Your task to perform on an android device: Add "bose soundlink" to the cart on newegg.com, then select checkout. Image 0: 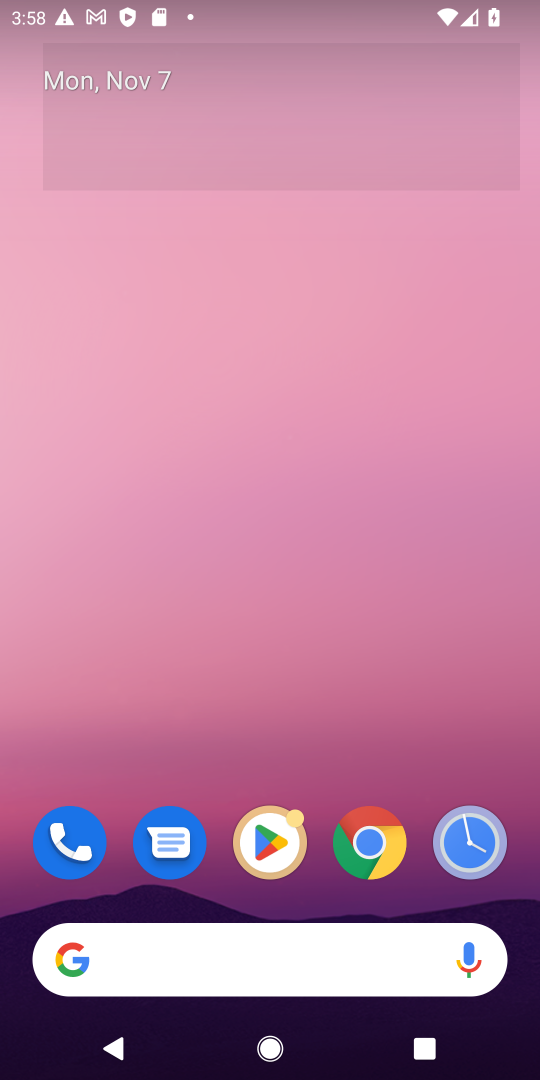
Step 0: drag from (315, 736) to (279, 205)
Your task to perform on an android device: Add "bose soundlink" to the cart on newegg.com, then select checkout. Image 1: 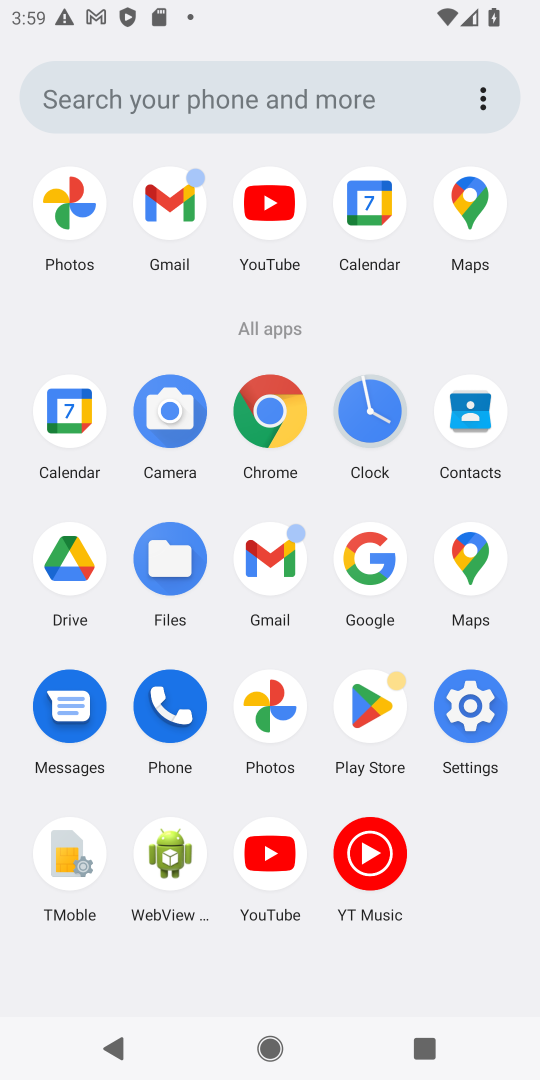
Step 1: click (276, 409)
Your task to perform on an android device: Add "bose soundlink" to the cart on newegg.com, then select checkout. Image 2: 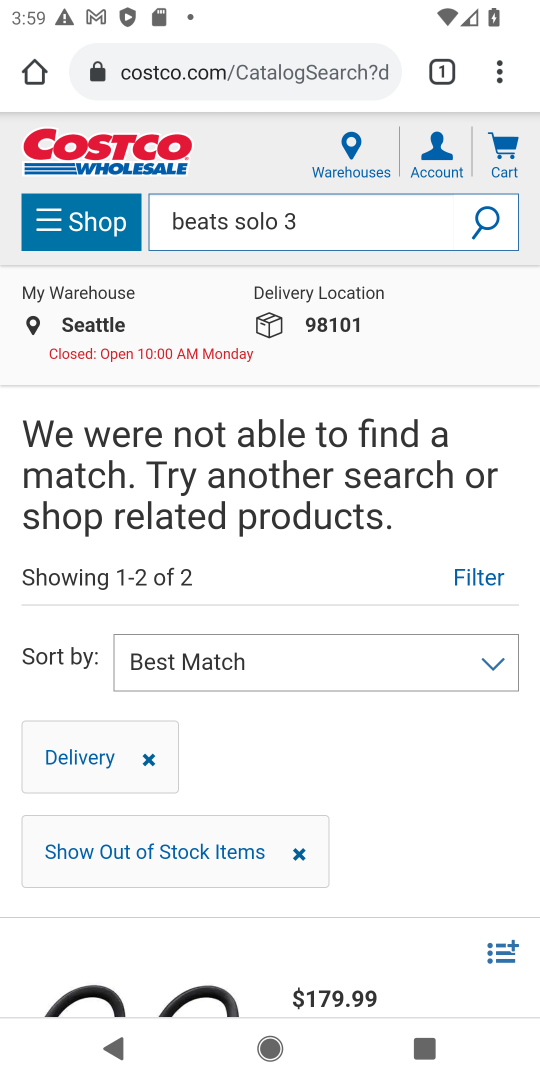
Step 2: click (242, 74)
Your task to perform on an android device: Add "bose soundlink" to the cart on newegg.com, then select checkout. Image 3: 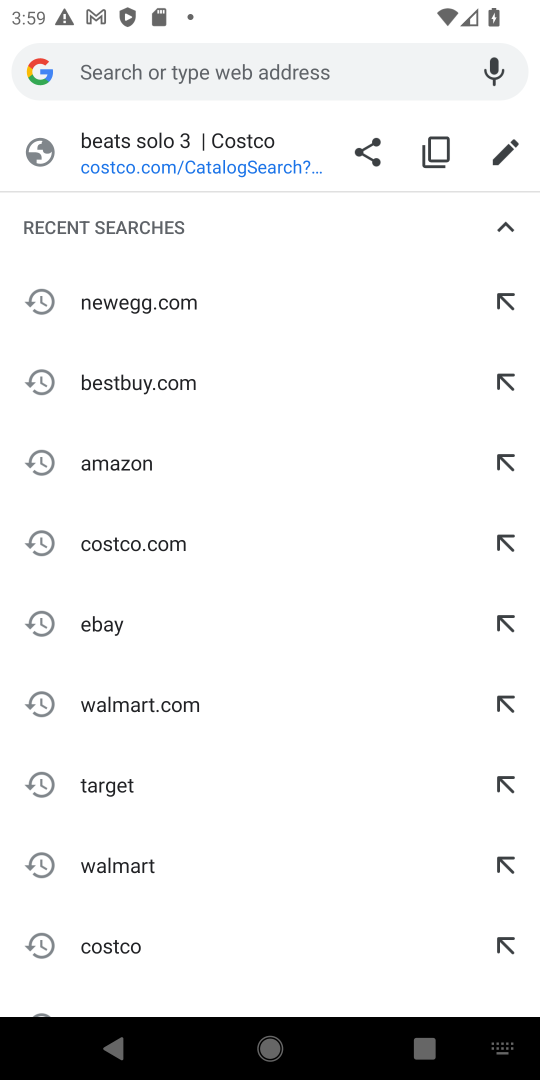
Step 3: press enter
Your task to perform on an android device: Add "bose soundlink" to the cart on newegg.com, then select checkout. Image 4: 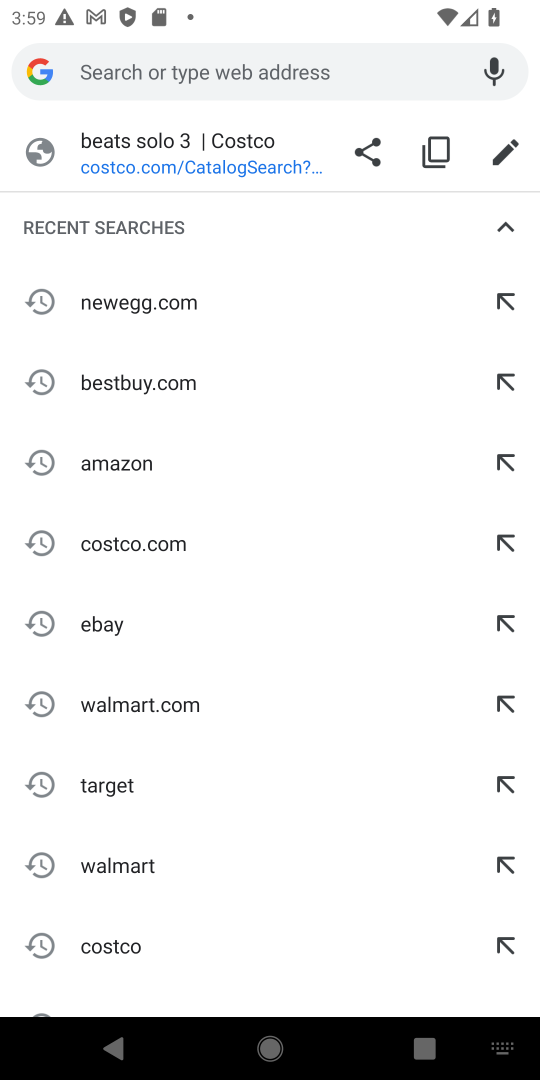
Step 4: type "bose soundlink"
Your task to perform on an android device: Add "bose soundlink" to the cart on newegg.com, then select checkout. Image 5: 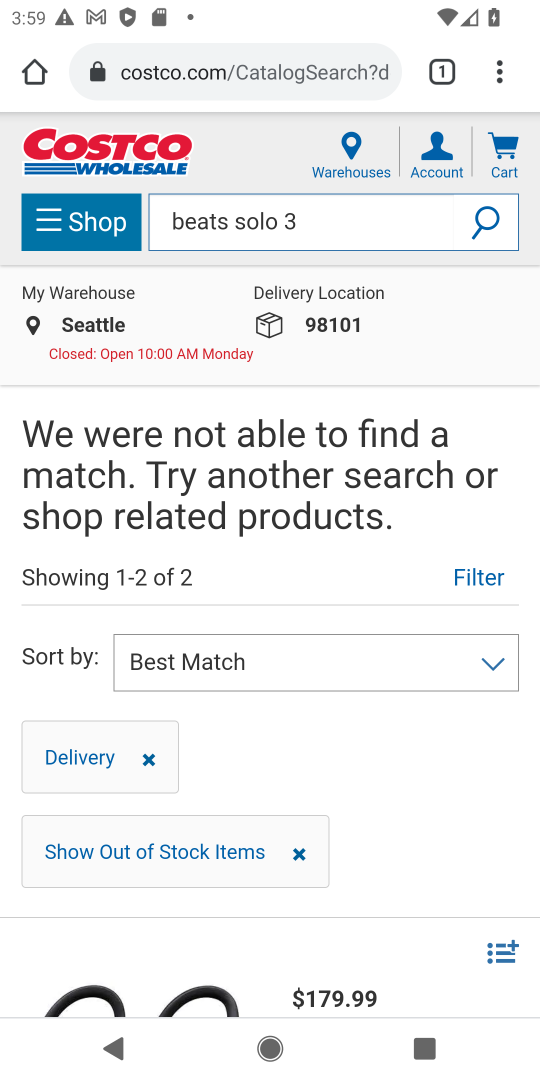
Step 5: click (314, 224)
Your task to perform on an android device: Add "bose soundlink" to the cart on newegg.com, then select checkout. Image 6: 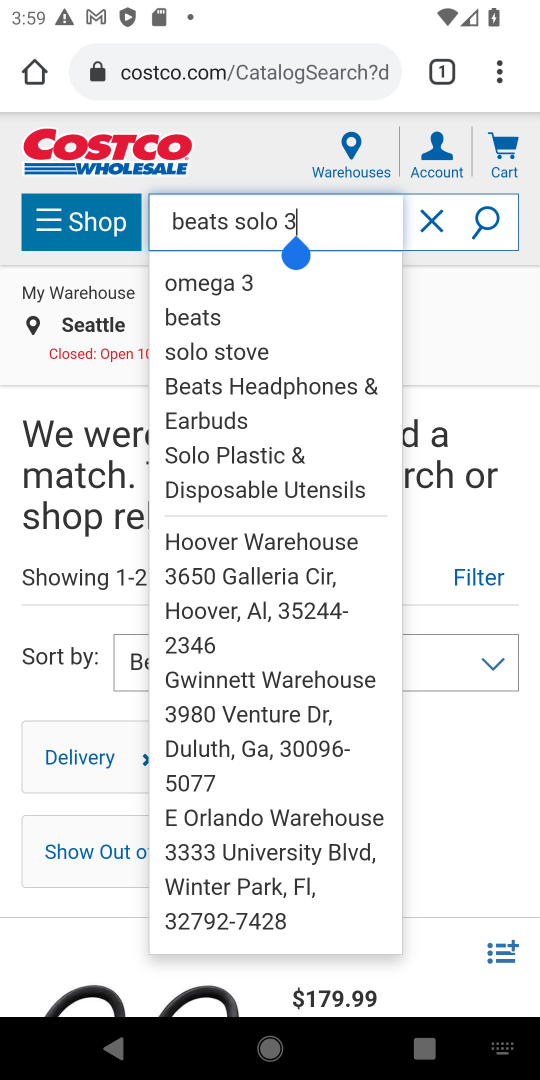
Step 6: click (430, 216)
Your task to perform on an android device: Add "bose soundlink" to the cart on newegg.com, then select checkout. Image 7: 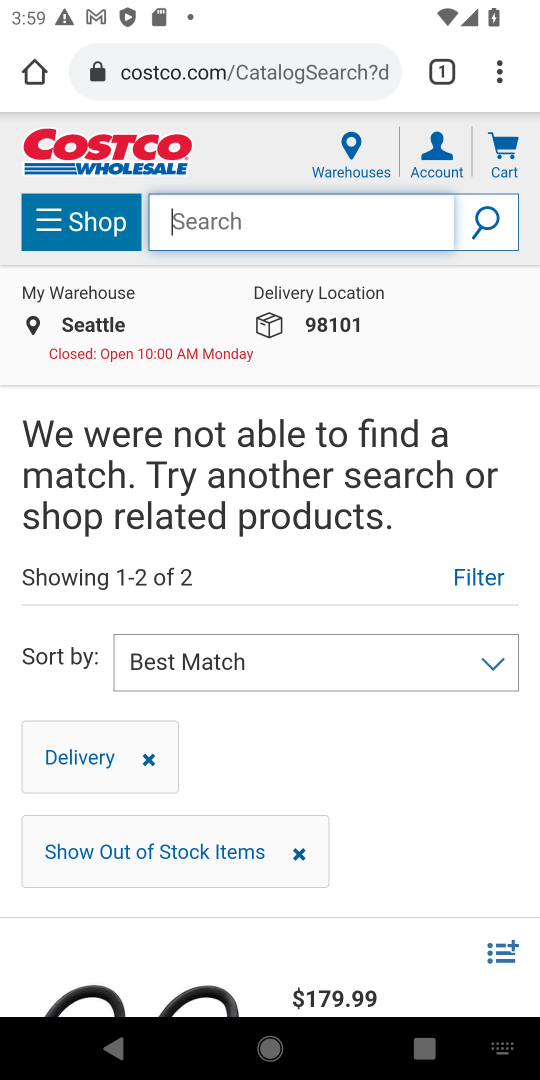
Step 7: click (228, 73)
Your task to perform on an android device: Add "bose soundlink" to the cart on newegg.com, then select checkout. Image 8: 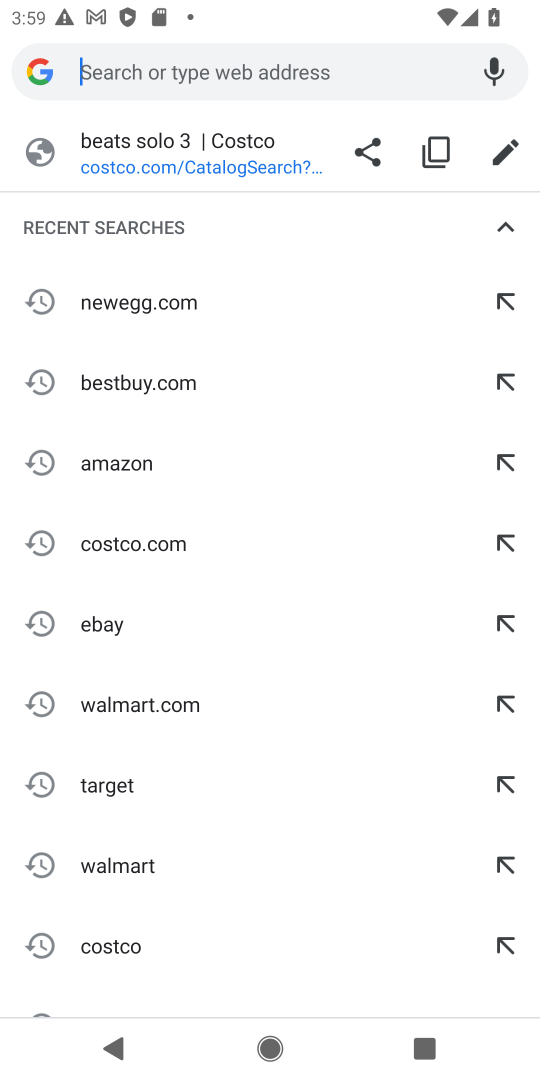
Step 8: click (142, 301)
Your task to perform on an android device: Add "bose soundlink" to the cart on newegg.com, then select checkout. Image 9: 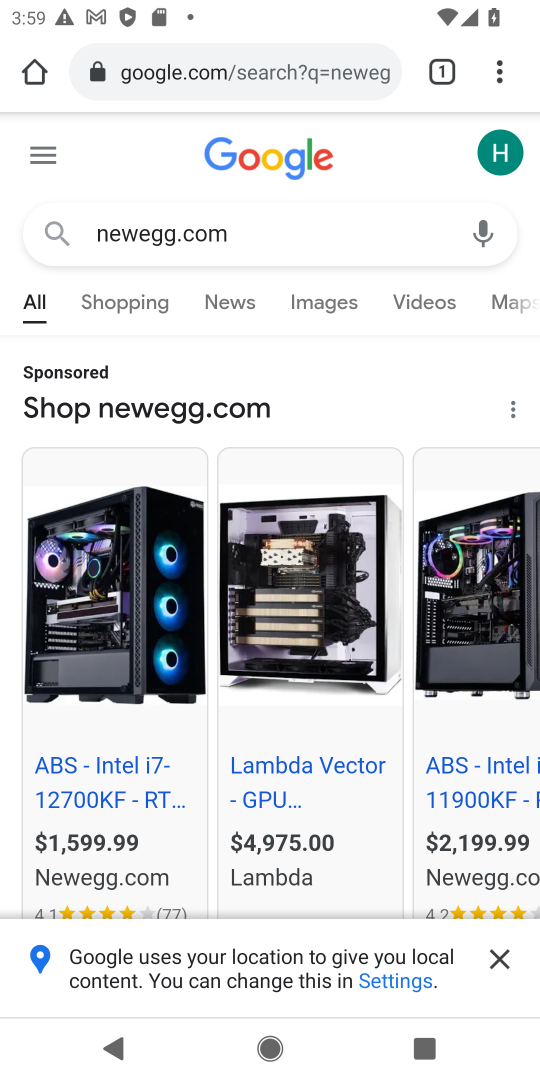
Step 9: drag from (250, 650) to (266, 266)
Your task to perform on an android device: Add "bose soundlink" to the cart on newegg.com, then select checkout. Image 10: 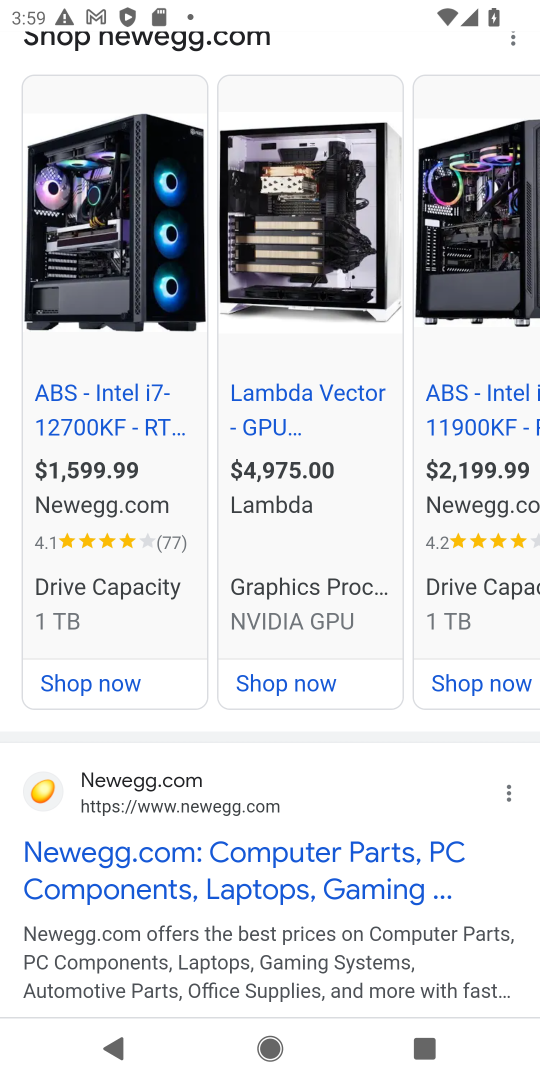
Step 10: drag from (291, 451) to (374, 842)
Your task to perform on an android device: Add "bose soundlink" to the cart on newegg.com, then select checkout. Image 11: 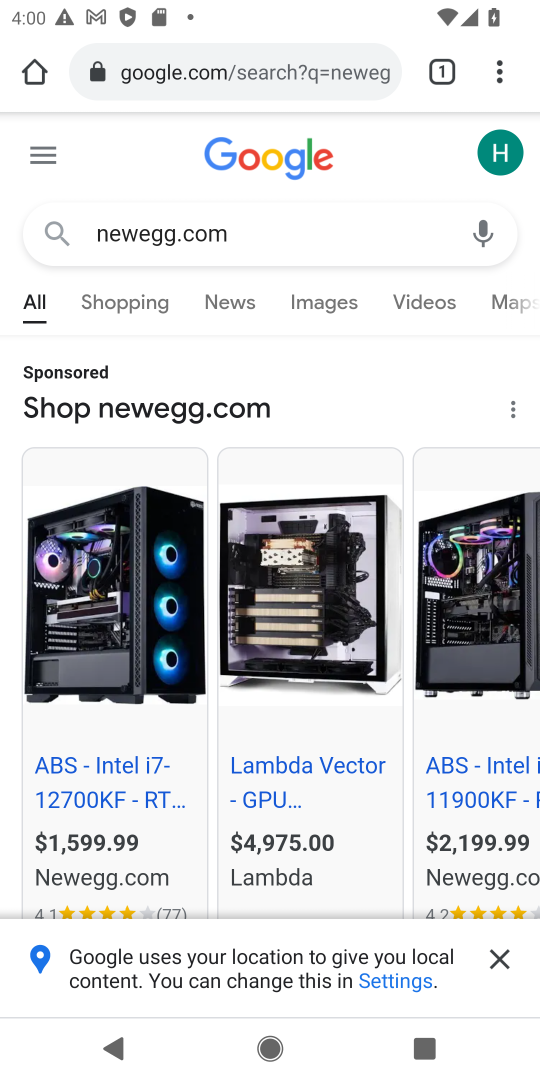
Step 11: drag from (326, 786) to (320, 421)
Your task to perform on an android device: Add "bose soundlink" to the cart on newegg.com, then select checkout. Image 12: 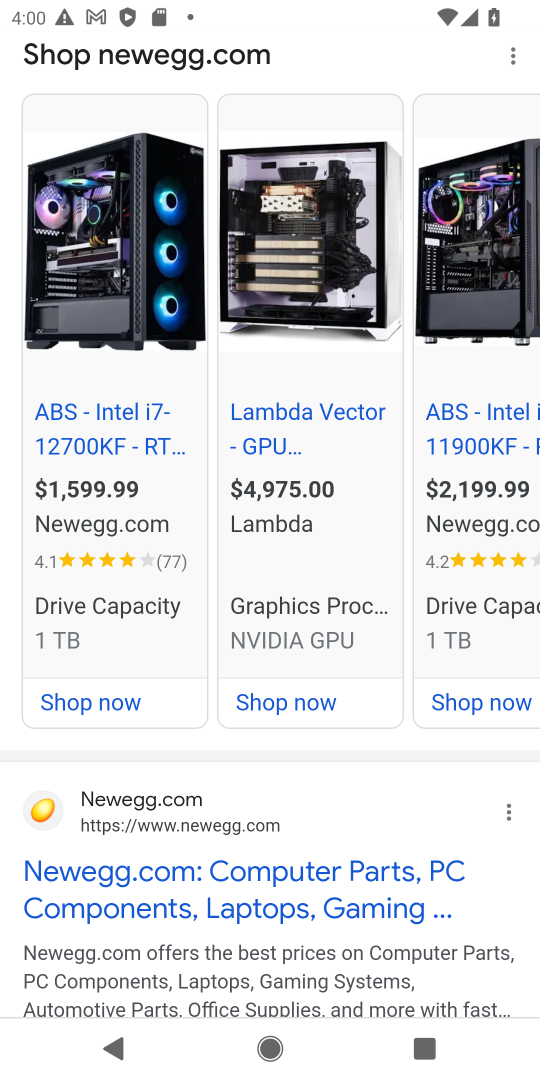
Step 12: click (117, 806)
Your task to perform on an android device: Add "bose soundlink" to the cart on newegg.com, then select checkout. Image 13: 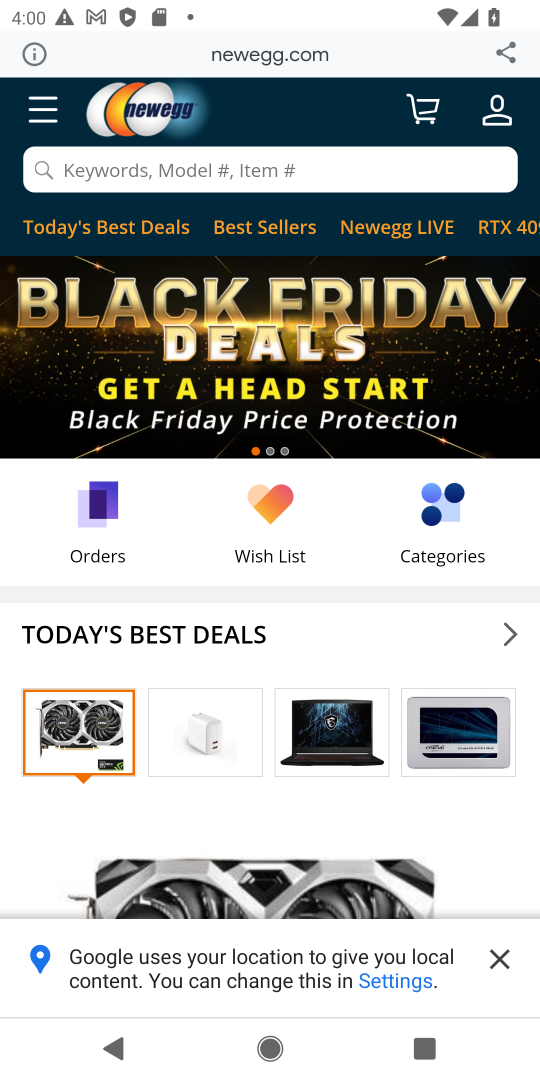
Step 13: click (122, 181)
Your task to perform on an android device: Add "bose soundlink" to the cart on newegg.com, then select checkout. Image 14: 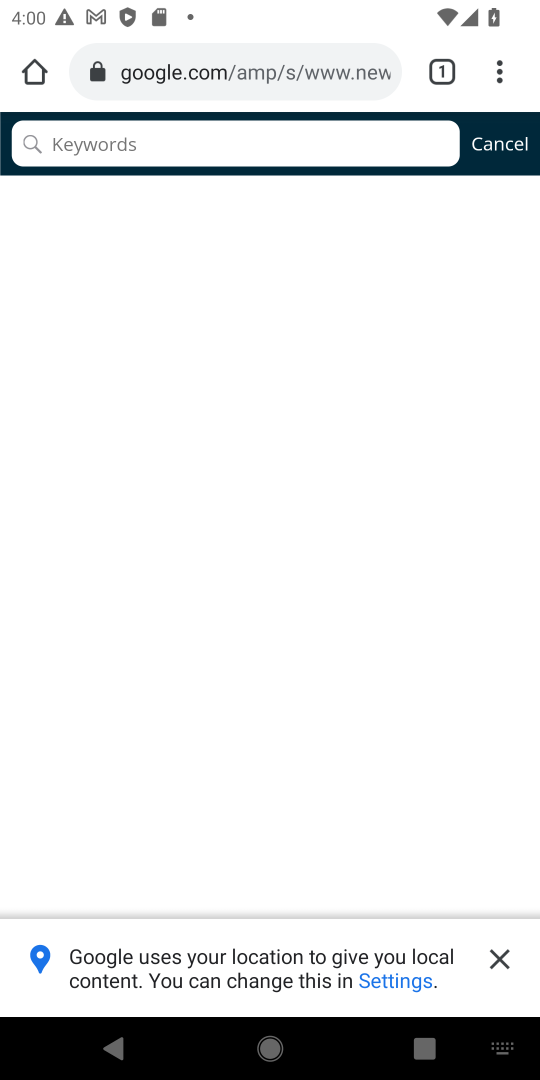
Step 14: type "bose soundlink"
Your task to perform on an android device: Add "bose soundlink" to the cart on newegg.com, then select checkout. Image 15: 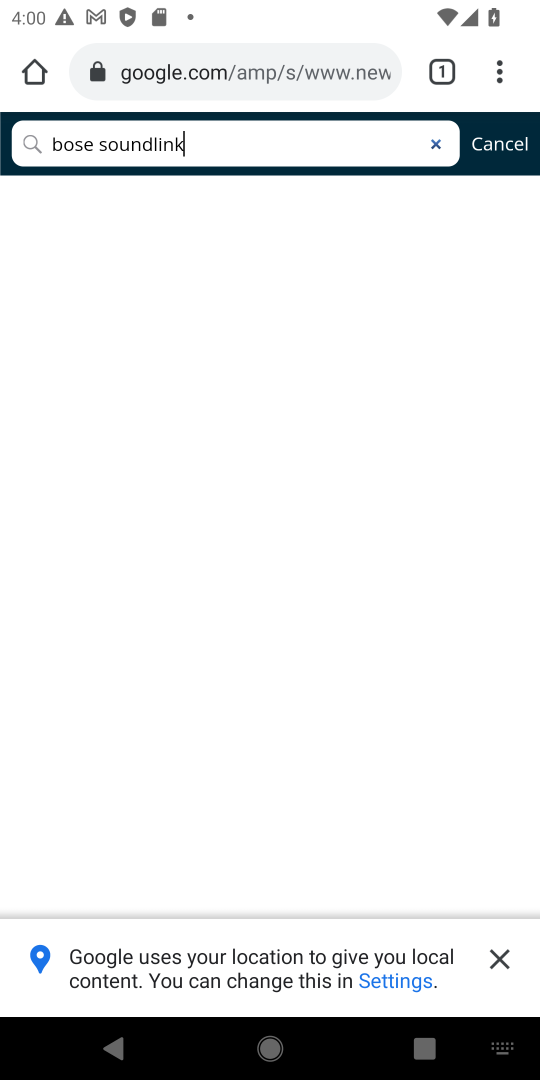
Step 15: press enter
Your task to perform on an android device: Add "bose soundlink" to the cart on newegg.com, then select checkout. Image 16: 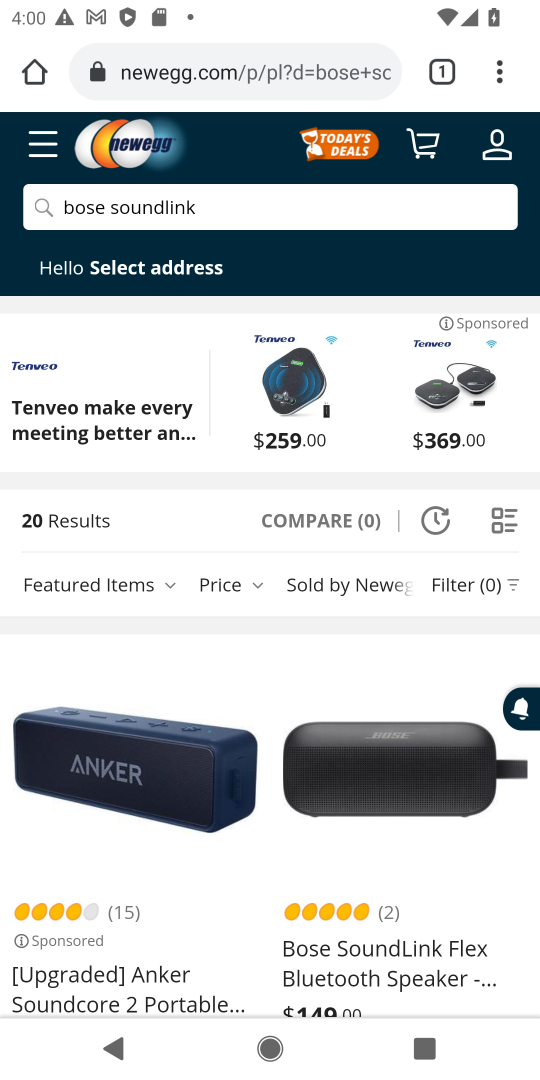
Step 16: drag from (329, 934) to (338, 439)
Your task to perform on an android device: Add "bose soundlink" to the cart on newegg.com, then select checkout. Image 17: 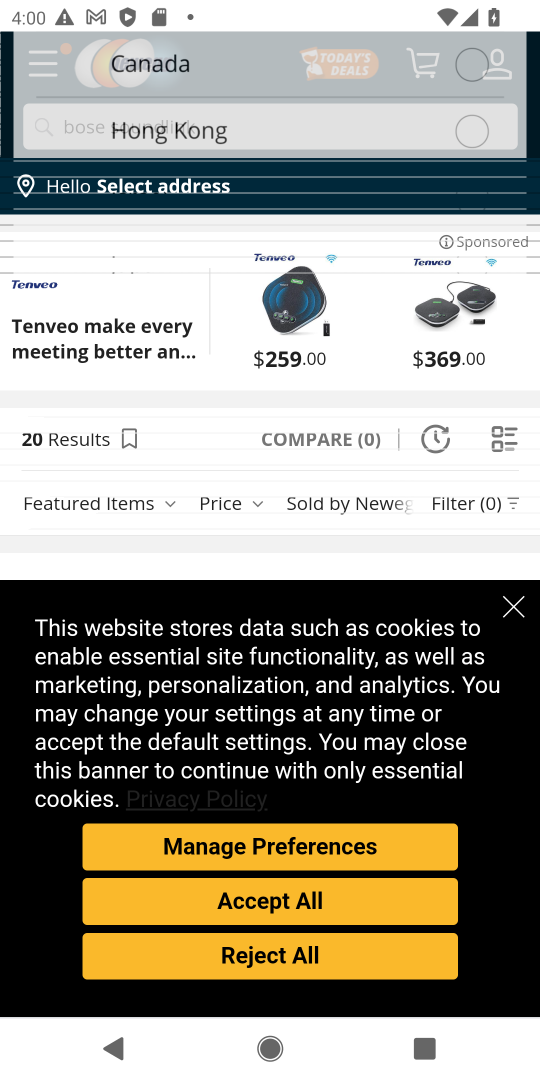
Step 17: click (509, 607)
Your task to perform on an android device: Add "bose soundlink" to the cart on newegg.com, then select checkout. Image 18: 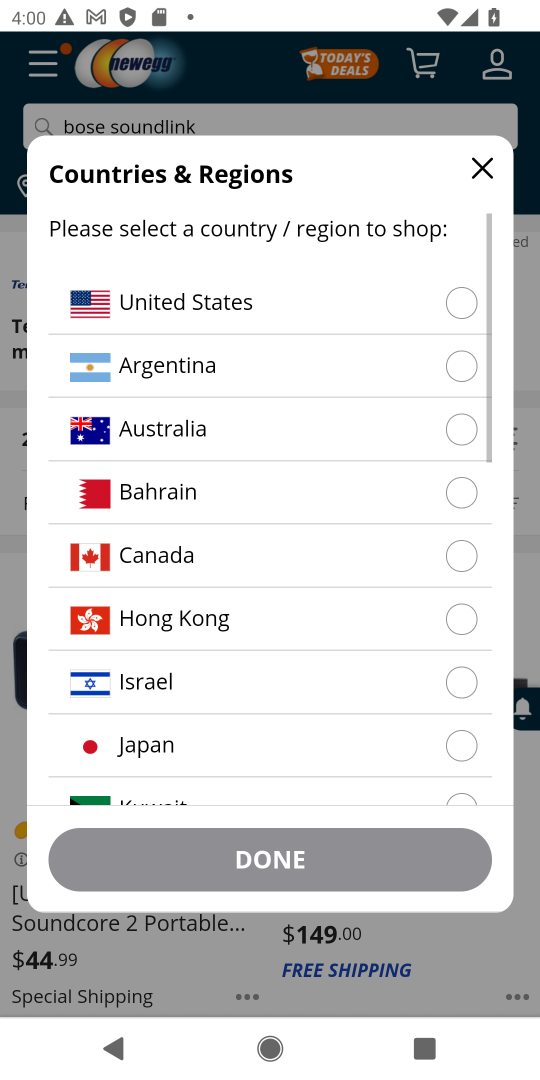
Step 18: click (516, 606)
Your task to perform on an android device: Add "bose soundlink" to the cart on newegg.com, then select checkout. Image 19: 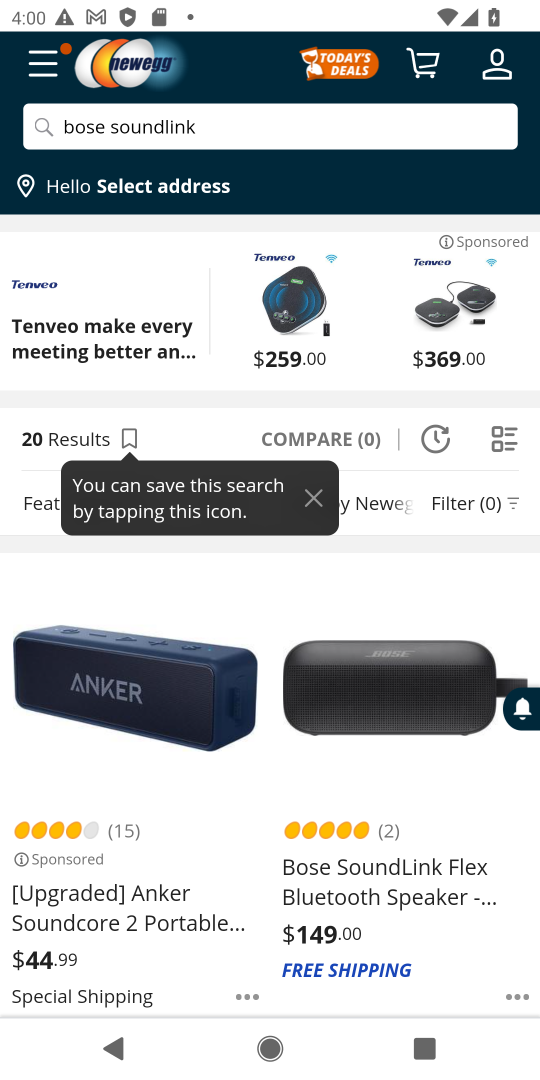
Step 19: drag from (291, 611) to (369, 352)
Your task to perform on an android device: Add "bose soundlink" to the cart on newegg.com, then select checkout. Image 20: 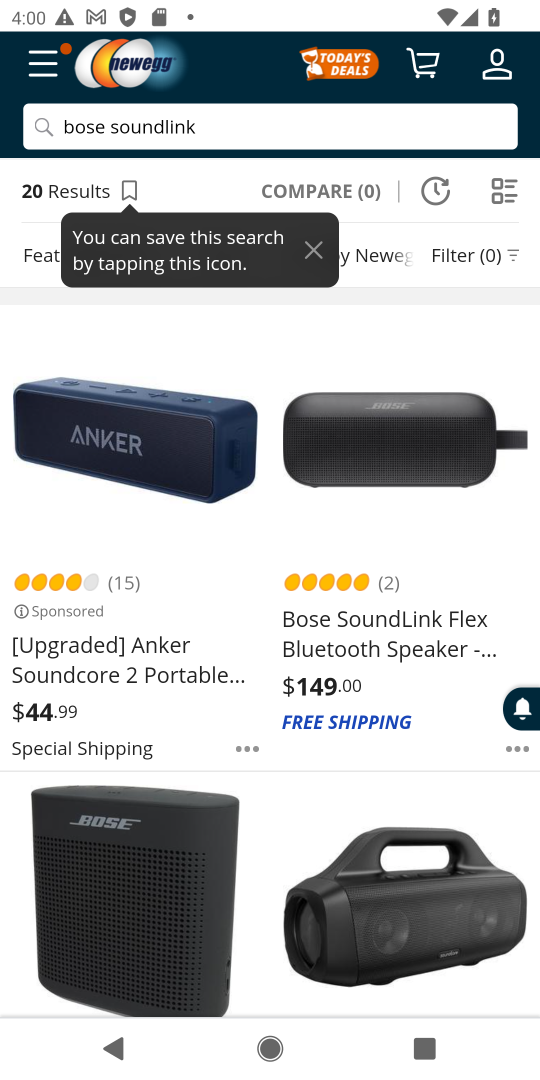
Step 20: click (151, 445)
Your task to perform on an android device: Add "bose soundlink" to the cart on newegg.com, then select checkout. Image 21: 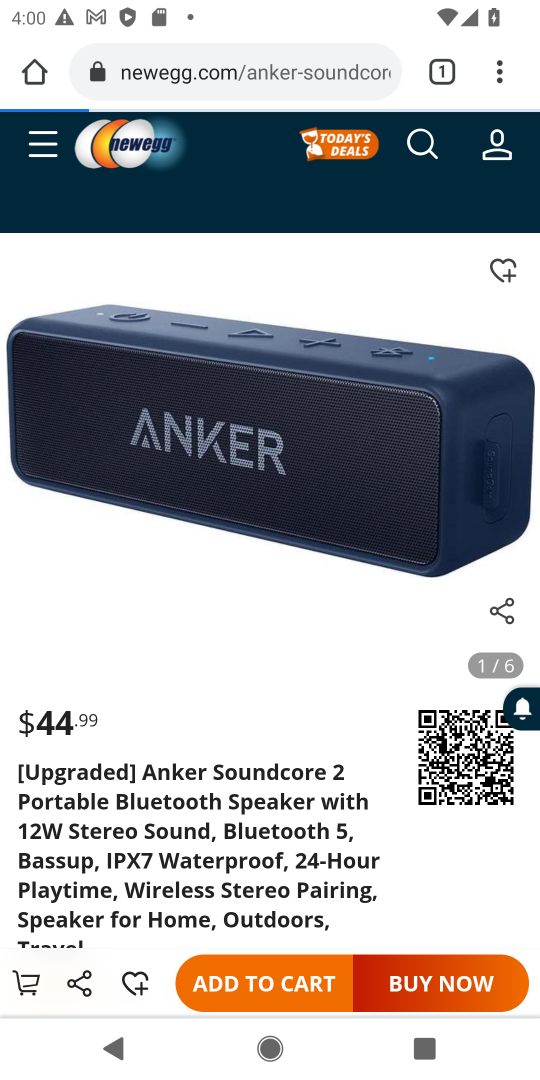
Step 21: click (136, 439)
Your task to perform on an android device: Add "bose soundlink" to the cart on newegg.com, then select checkout. Image 22: 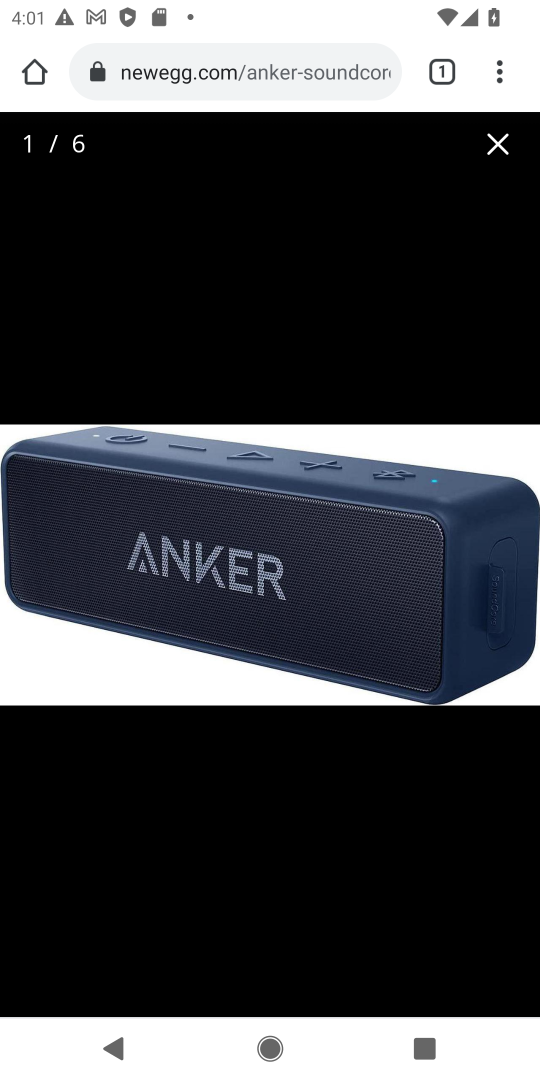
Step 22: click (499, 147)
Your task to perform on an android device: Add "bose soundlink" to the cart on newegg.com, then select checkout. Image 23: 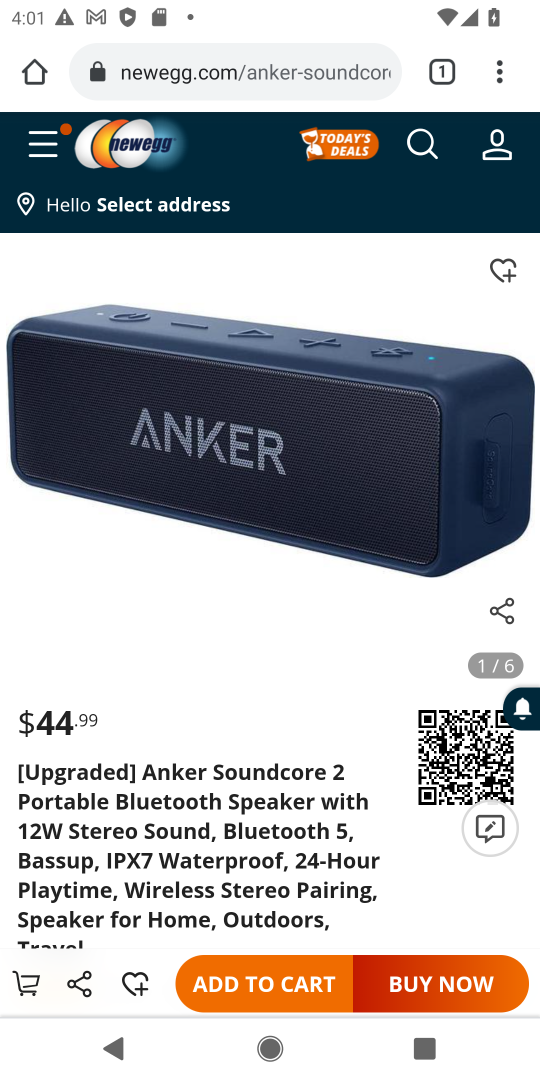
Step 23: click (258, 982)
Your task to perform on an android device: Add "bose soundlink" to the cart on newegg.com, then select checkout. Image 24: 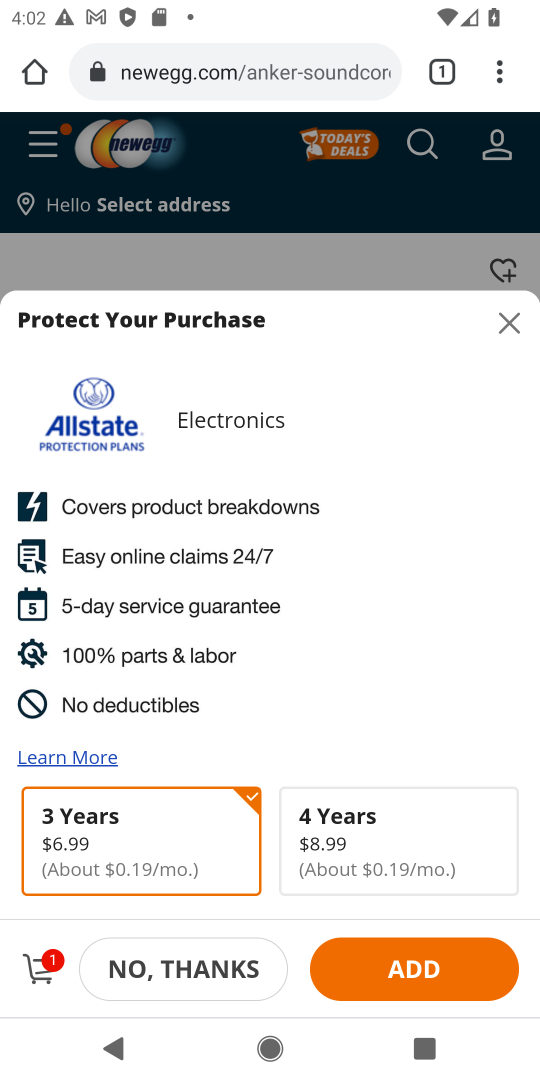
Step 24: click (516, 328)
Your task to perform on an android device: Add "bose soundlink" to the cart on newegg.com, then select checkout. Image 25: 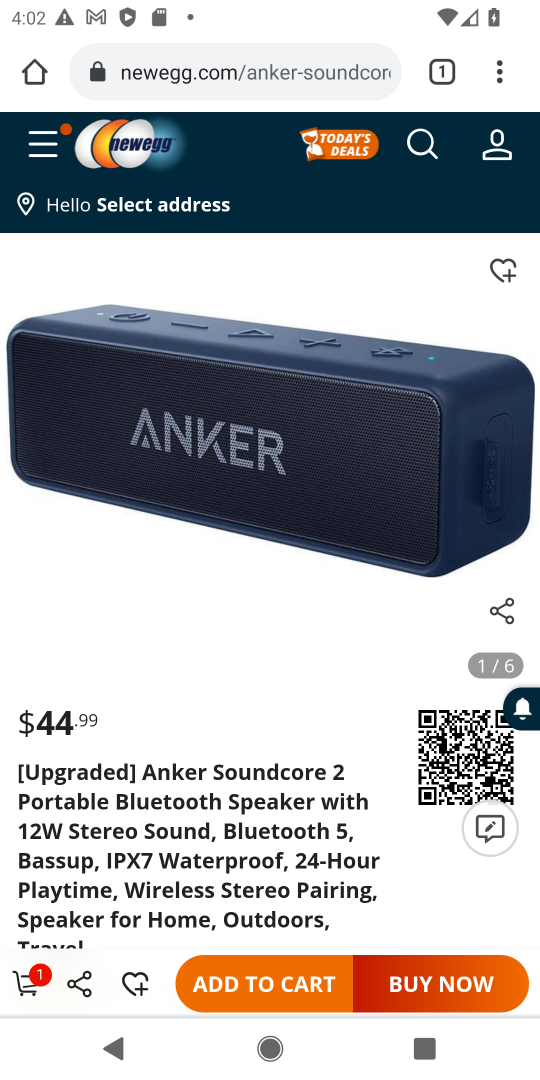
Step 25: click (244, 983)
Your task to perform on an android device: Add "bose soundlink" to the cart on newegg.com, then select checkout. Image 26: 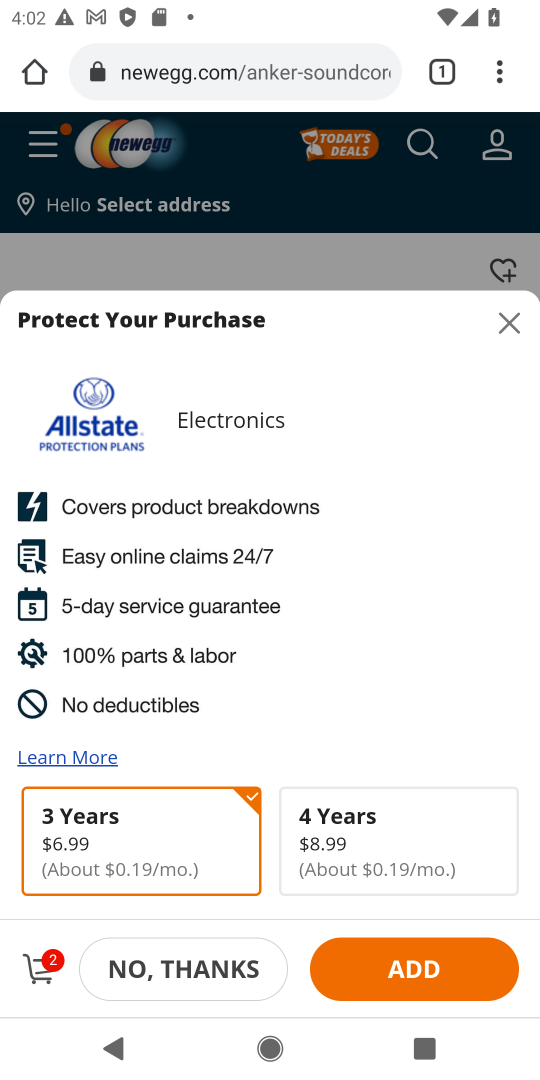
Step 26: click (424, 974)
Your task to perform on an android device: Add "bose soundlink" to the cart on newegg.com, then select checkout. Image 27: 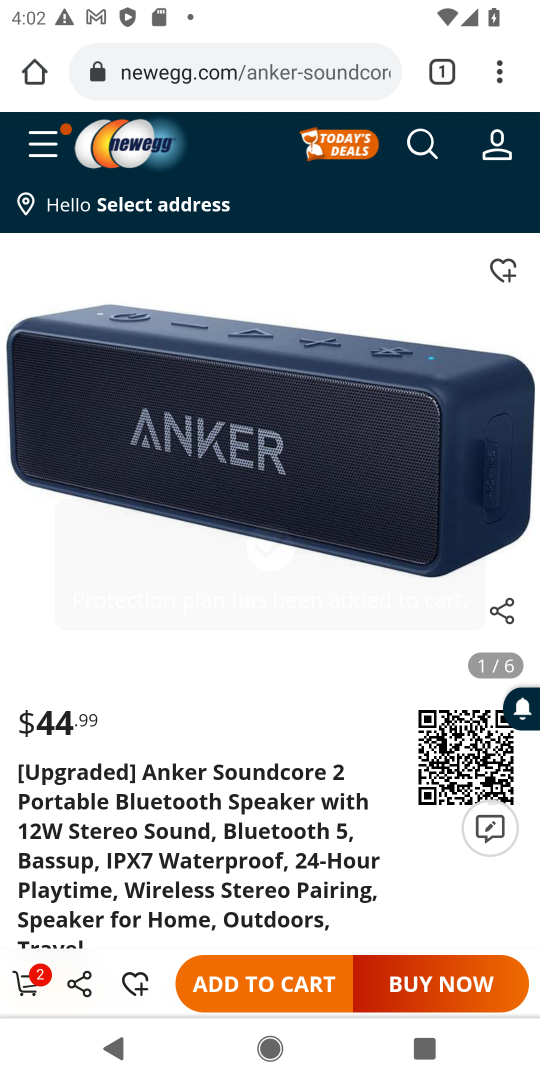
Step 27: drag from (263, 730) to (304, 325)
Your task to perform on an android device: Add "bose soundlink" to the cart on newegg.com, then select checkout. Image 28: 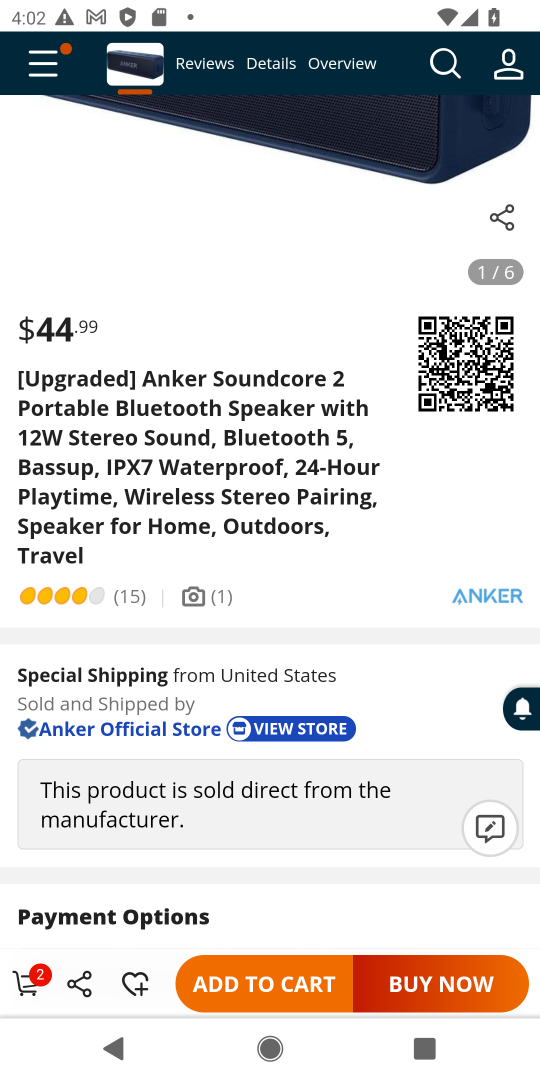
Step 28: drag from (306, 343) to (306, 878)
Your task to perform on an android device: Add "bose soundlink" to the cart on newegg.com, then select checkout. Image 29: 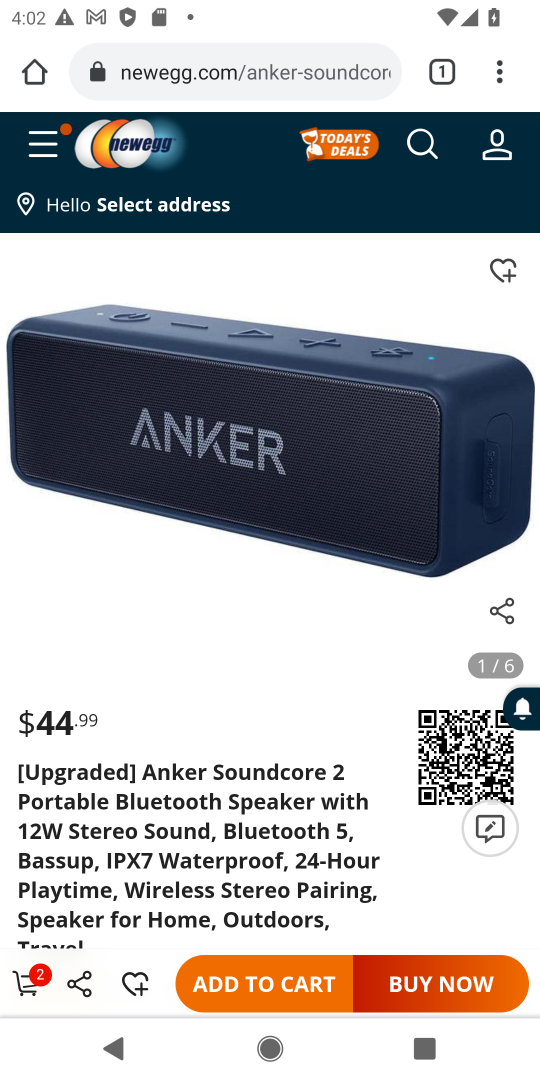
Step 29: drag from (266, 411) to (322, 715)
Your task to perform on an android device: Add "bose soundlink" to the cart on newegg.com, then select checkout. Image 30: 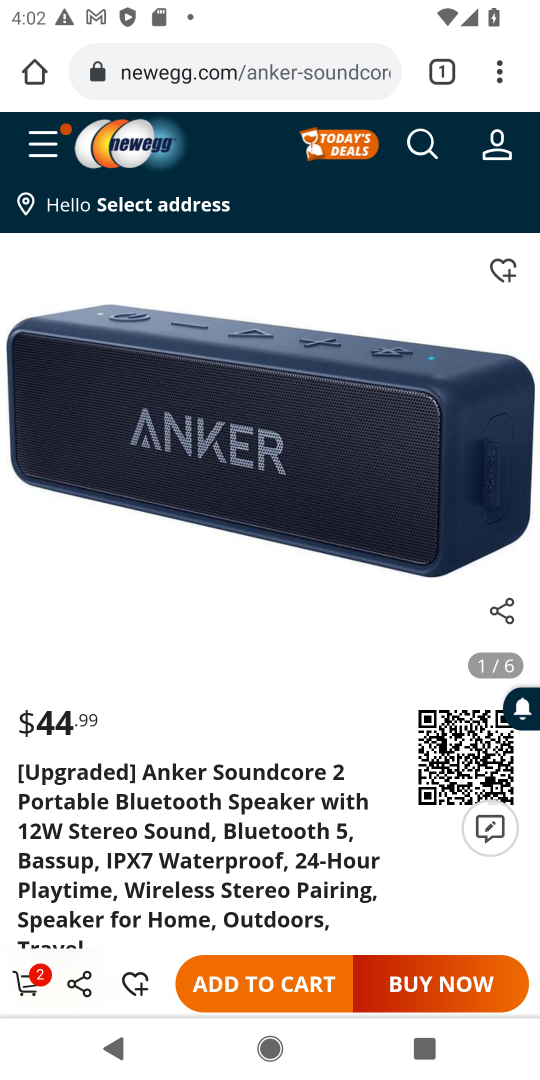
Step 30: click (17, 992)
Your task to perform on an android device: Add "bose soundlink" to the cart on newegg.com, then select checkout. Image 31: 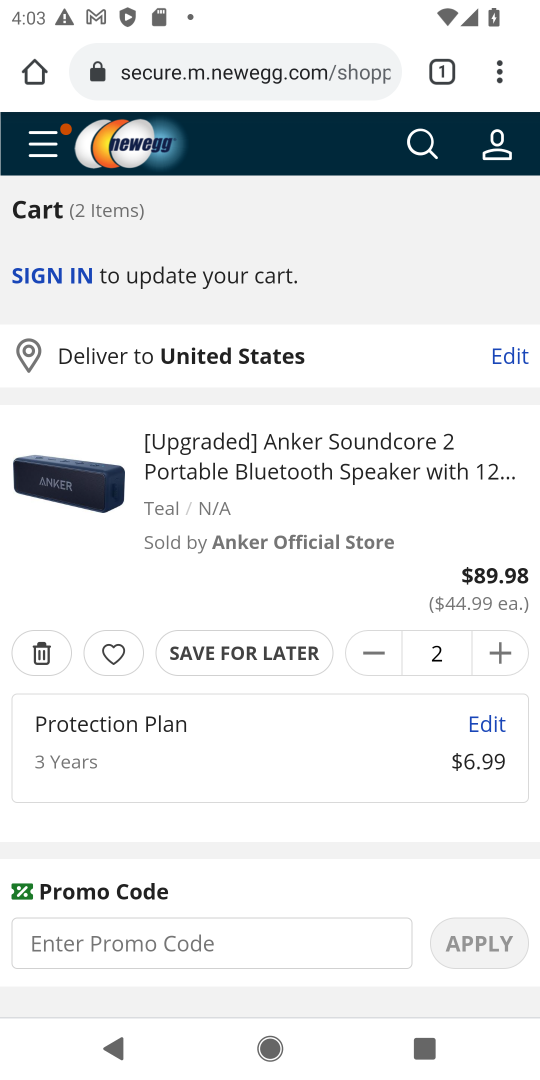
Step 31: drag from (280, 822) to (324, 297)
Your task to perform on an android device: Add "bose soundlink" to the cart on newegg.com, then select checkout. Image 32: 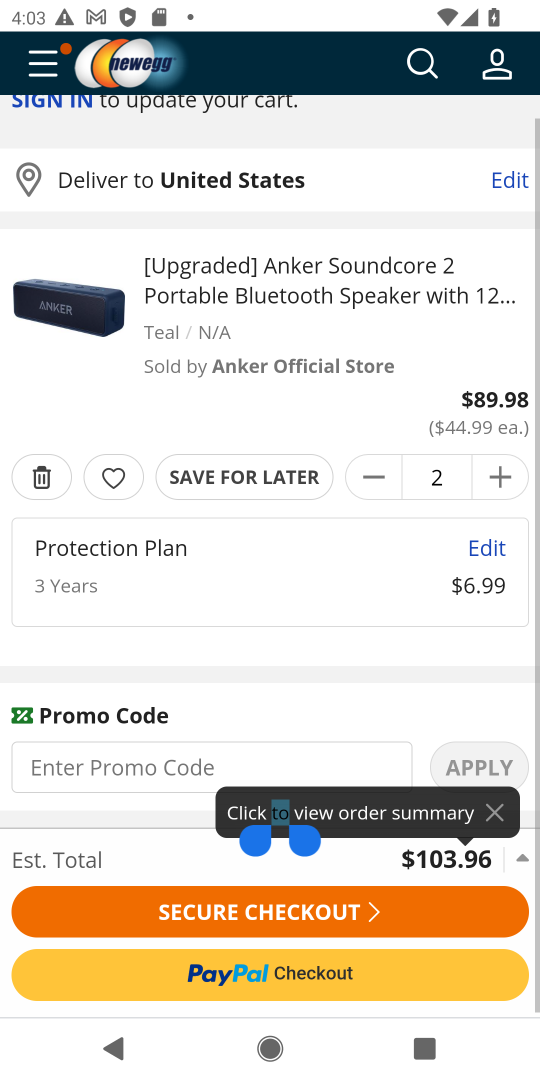
Step 32: drag from (316, 462) to (362, 892)
Your task to perform on an android device: Add "bose soundlink" to the cart on newegg.com, then select checkout. Image 33: 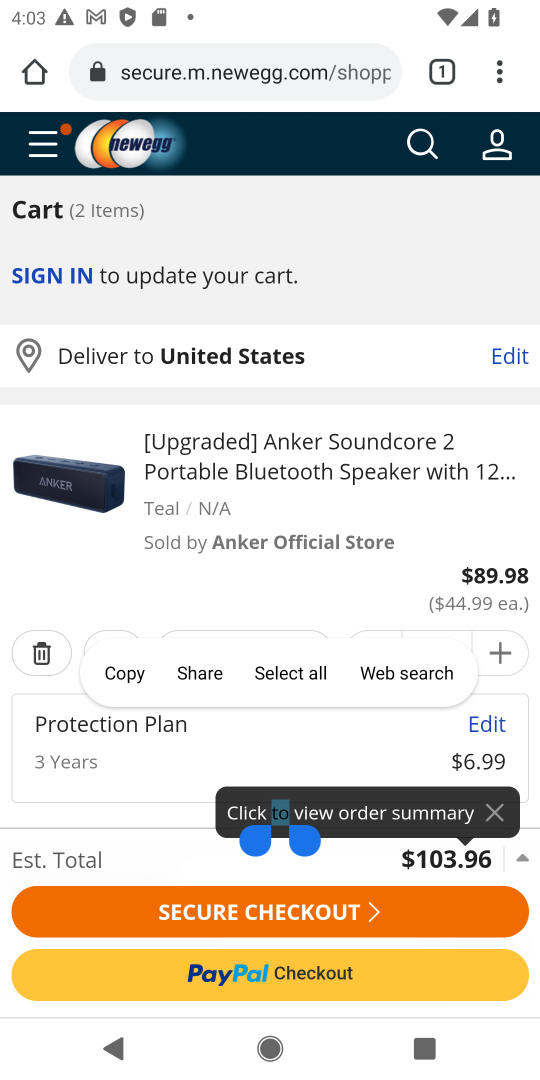
Step 33: click (301, 735)
Your task to perform on an android device: Add "bose soundlink" to the cart on newegg.com, then select checkout. Image 34: 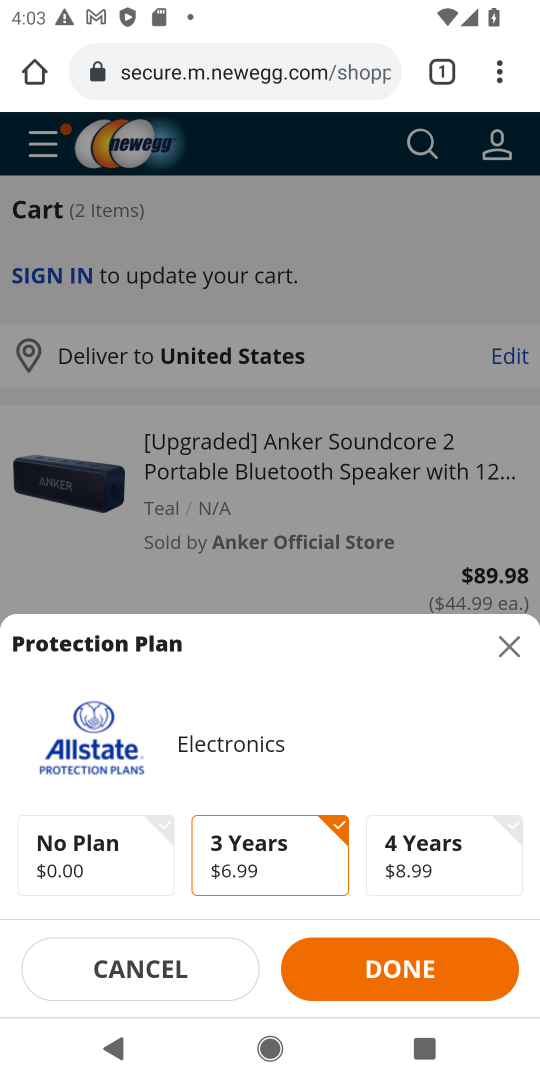
Step 34: task complete